Your task to perform on an android device: Go to Yahoo.com Image 0: 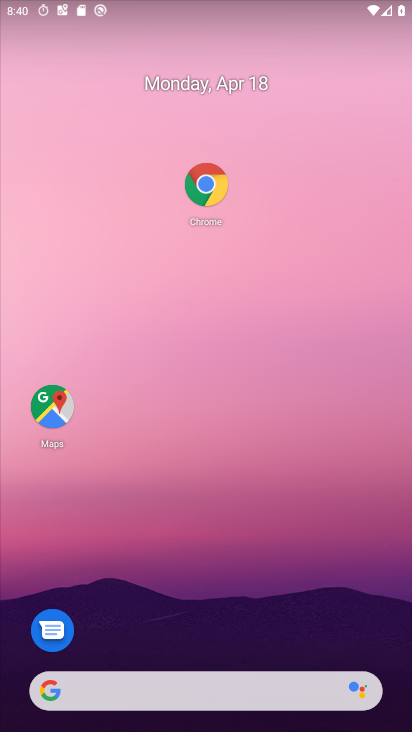
Step 0: click (207, 191)
Your task to perform on an android device: Go to Yahoo.com Image 1: 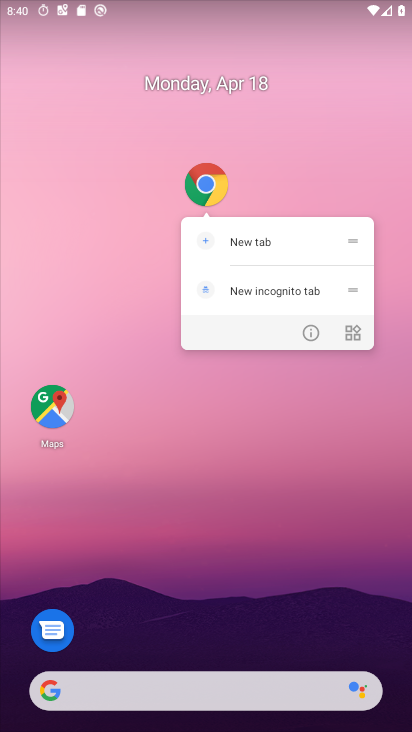
Step 1: click (206, 190)
Your task to perform on an android device: Go to Yahoo.com Image 2: 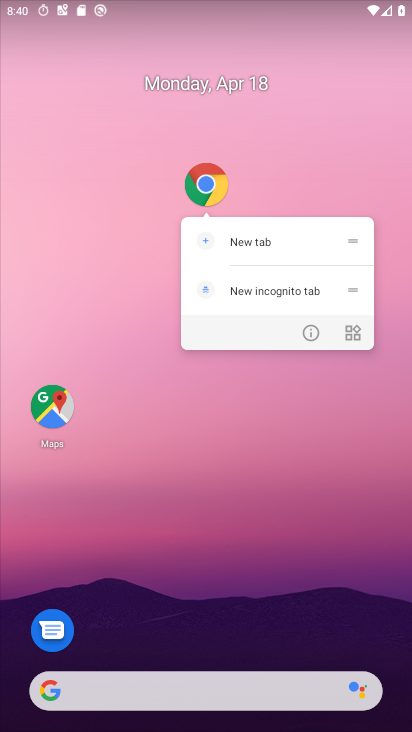
Step 2: click (206, 190)
Your task to perform on an android device: Go to Yahoo.com Image 3: 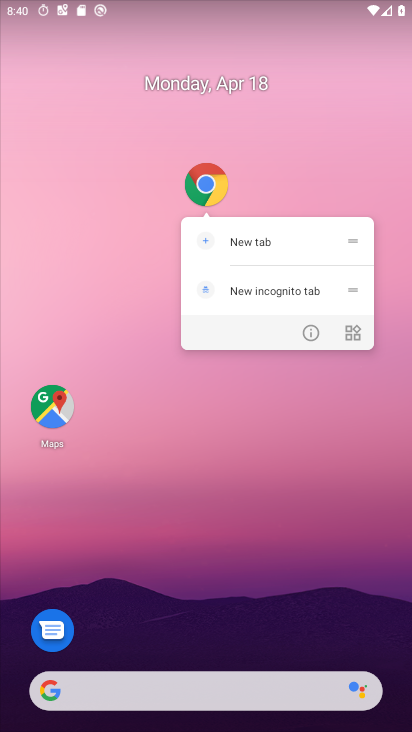
Step 3: click (215, 167)
Your task to perform on an android device: Go to Yahoo.com Image 4: 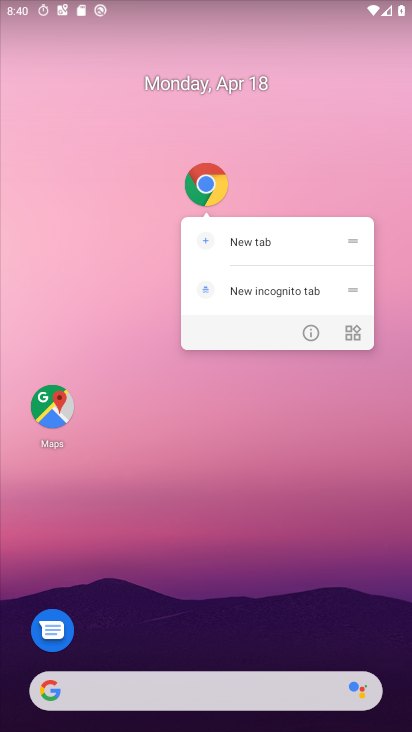
Step 4: click (194, 197)
Your task to perform on an android device: Go to Yahoo.com Image 5: 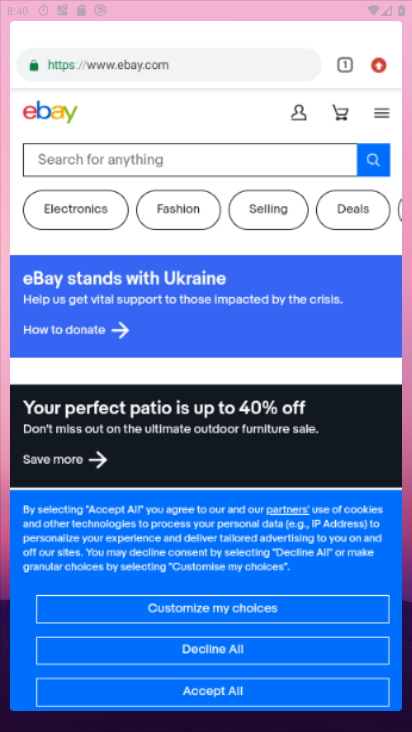
Step 5: click (206, 183)
Your task to perform on an android device: Go to Yahoo.com Image 6: 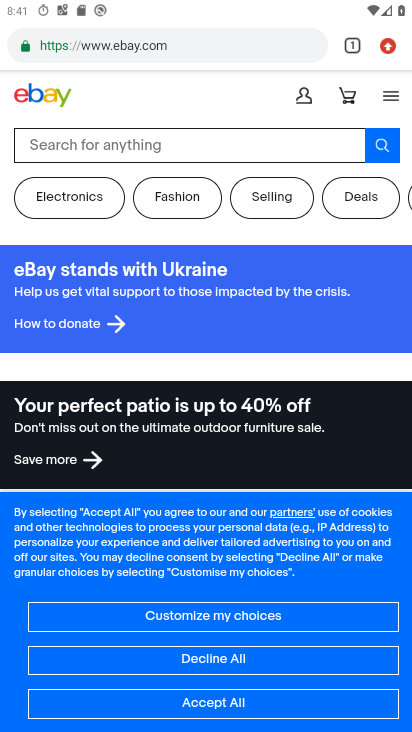
Step 6: press back button
Your task to perform on an android device: Go to Yahoo.com Image 7: 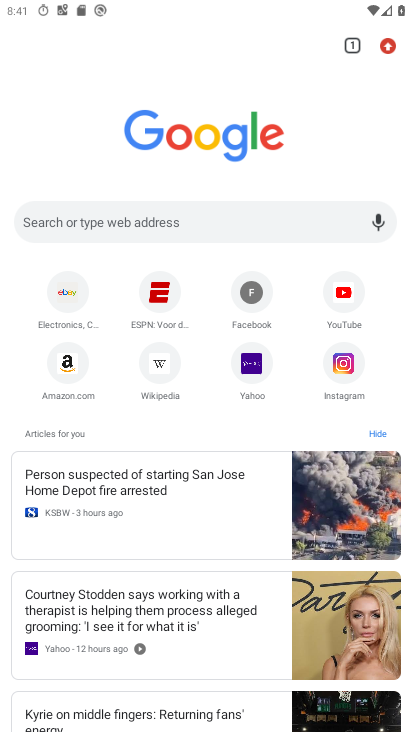
Step 7: click (249, 359)
Your task to perform on an android device: Go to Yahoo.com Image 8: 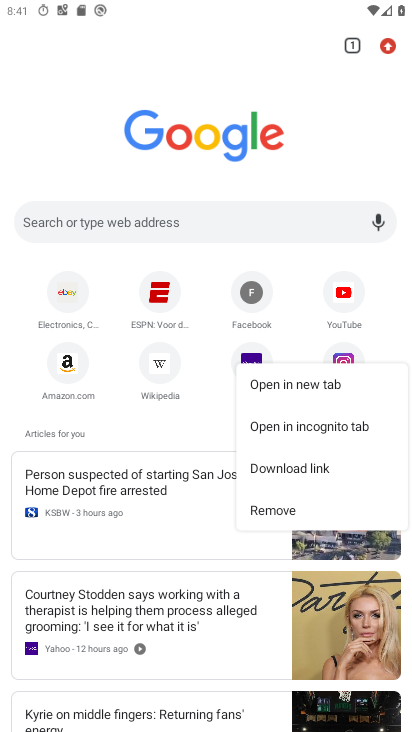
Step 8: click (249, 359)
Your task to perform on an android device: Go to Yahoo.com Image 9: 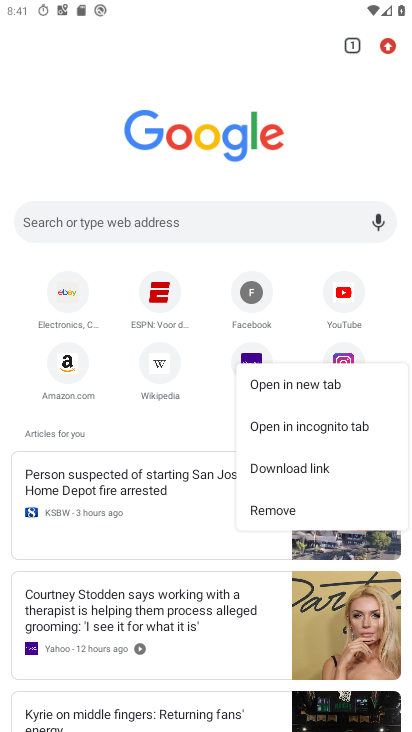
Step 9: click (248, 351)
Your task to perform on an android device: Go to Yahoo.com Image 10: 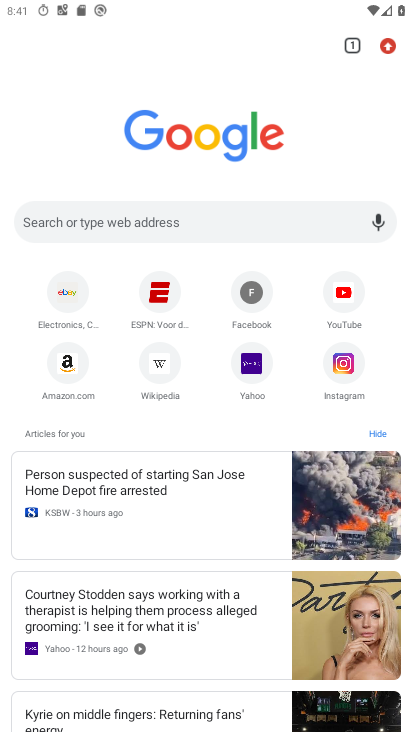
Step 10: click (254, 373)
Your task to perform on an android device: Go to Yahoo.com Image 11: 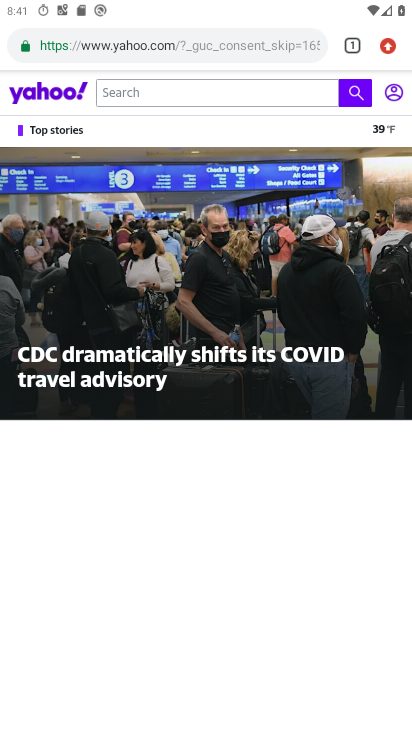
Step 11: click (249, 365)
Your task to perform on an android device: Go to Yahoo.com Image 12: 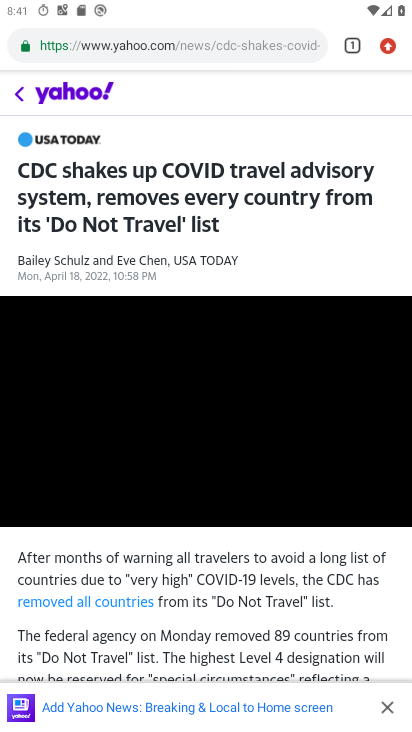
Step 12: task complete